Your task to perform on an android device: star an email in the gmail app Image 0: 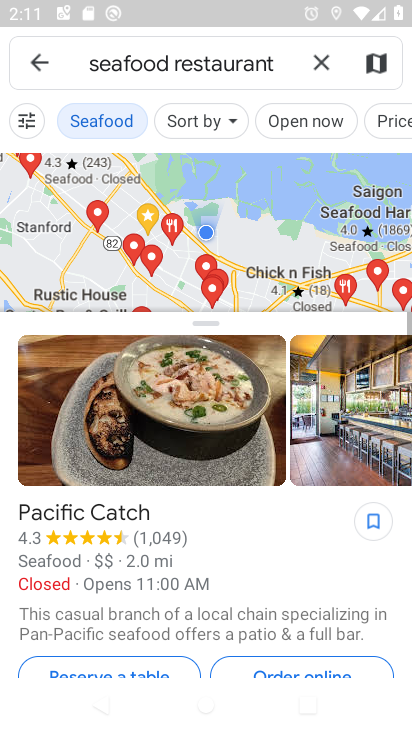
Step 0: press home button
Your task to perform on an android device: star an email in the gmail app Image 1: 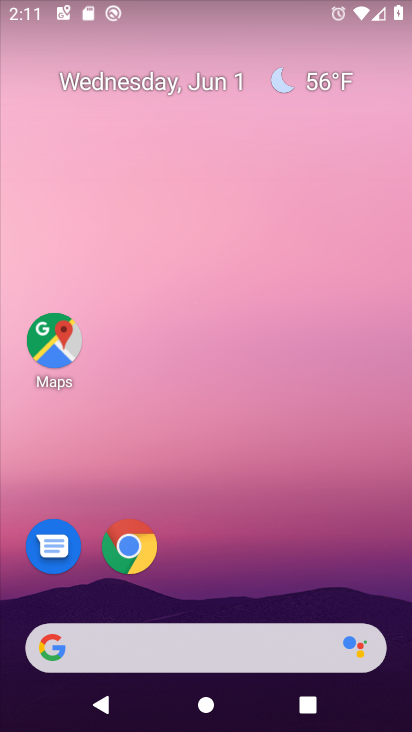
Step 1: drag from (144, 724) to (125, 3)
Your task to perform on an android device: star an email in the gmail app Image 2: 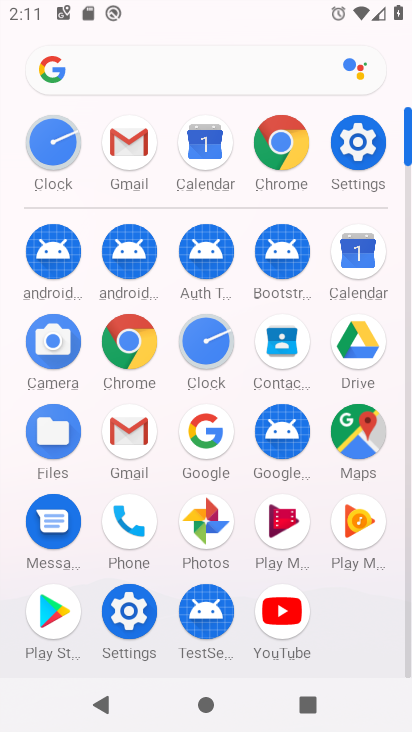
Step 2: click (143, 157)
Your task to perform on an android device: star an email in the gmail app Image 3: 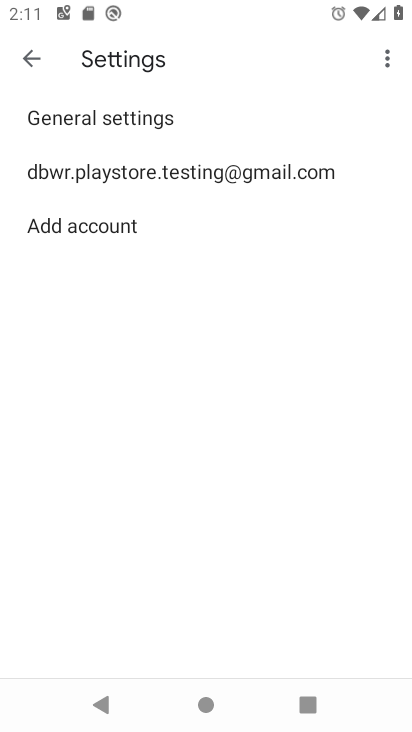
Step 3: click (30, 50)
Your task to perform on an android device: star an email in the gmail app Image 4: 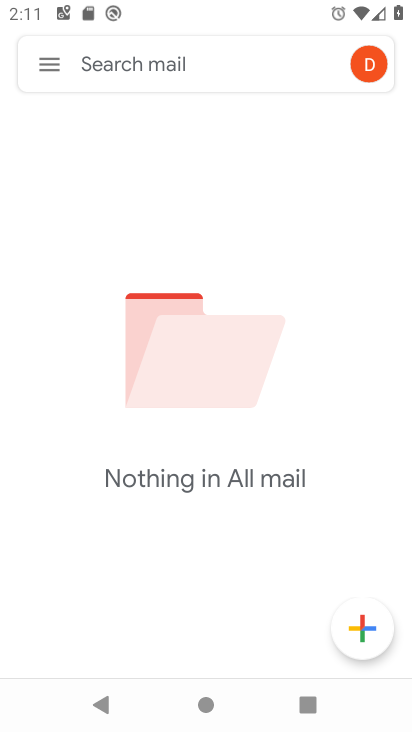
Step 4: click (43, 64)
Your task to perform on an android device: star an email in the gmail app Image 5: 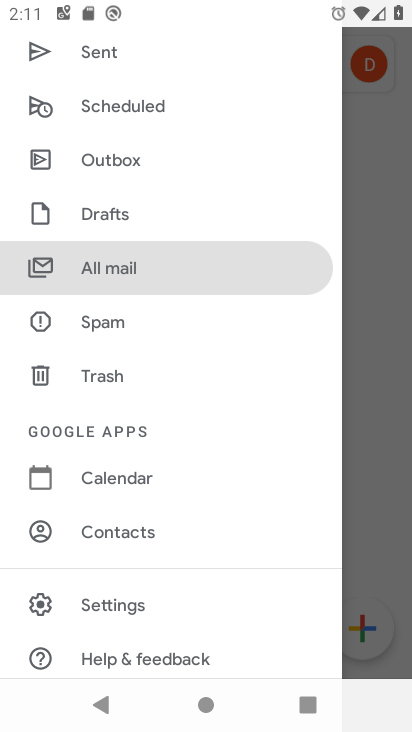
Step 5: drag from (160, 161) to (187, 583)
Your task to perform on an android device: star an email in the gmail app Image 6: 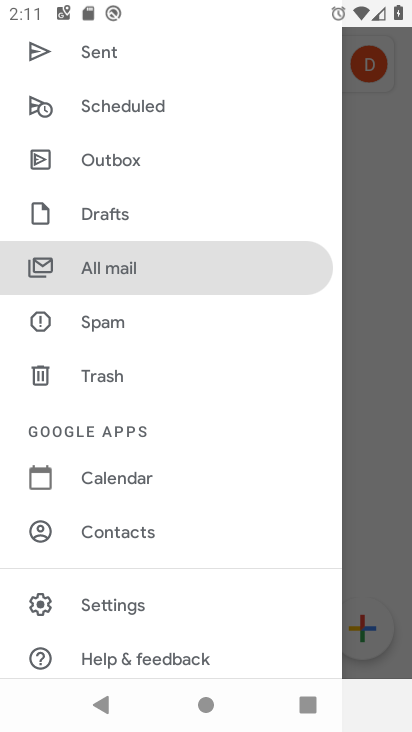
Step 6: drag from (179, 69) to (171, 589)
Your task to perform on an android device: star an email in the gmail app Image 7: 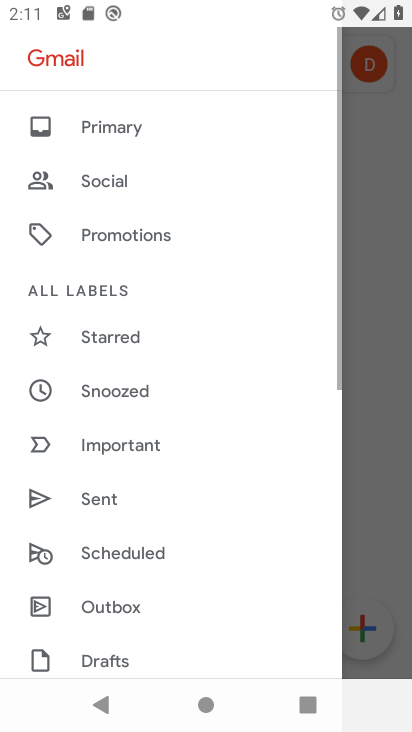
Step 7: click (101, 133)
Your task to perform on an android device: star an email in the gmail app Image 8: 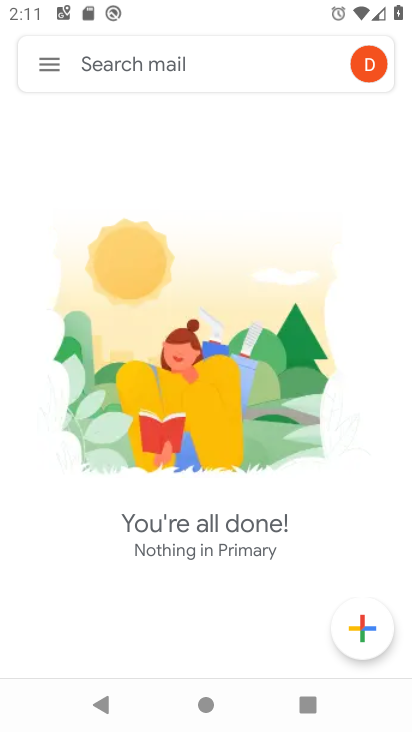
Step 8: task complete